Your task to perform on an android device: Add panasonic triple a to the cart on target.com Image 0: 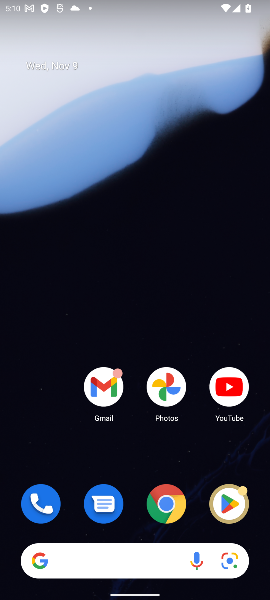
Step 0: click (118, 563)
Your task to perform on an android device: Add panasonic triple a to the cart on target.com Image 1: 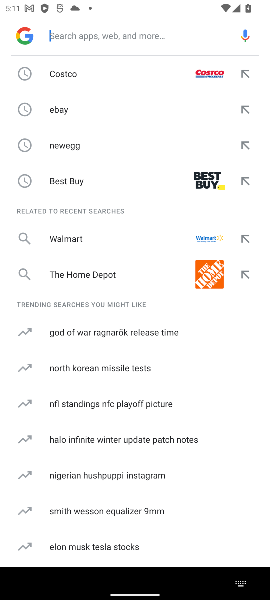
Step 1: type "target.com"
Your task to perform on an android device: Add panasonic triple a to the cart on target.com Image 2: 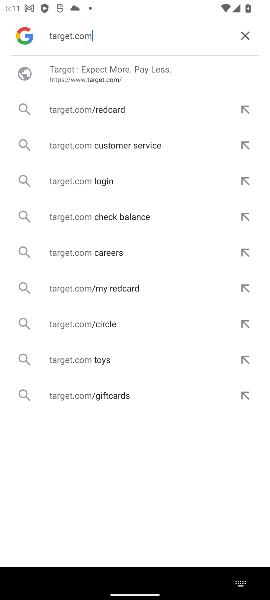
Step 2: click (100, 76)
Your task to perform on an android device: Add panasonic triple a to the cart on target.com Image 3: 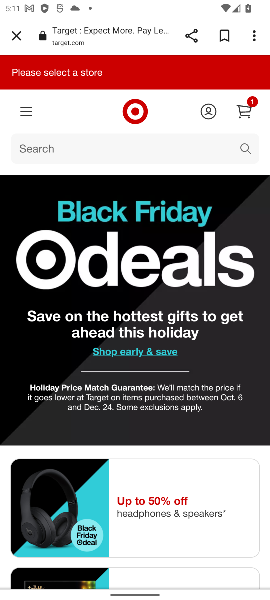
Step 3: click (173, 146)
Your task to perform on an android device: Add panasonic triple a to the cart on target.com Image 4: 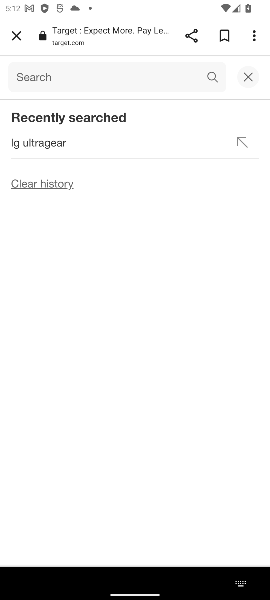
Step 4: type " triple a"
Your task to perform on an android device: Add panasonic triple a to the cart on target.com Image 5: 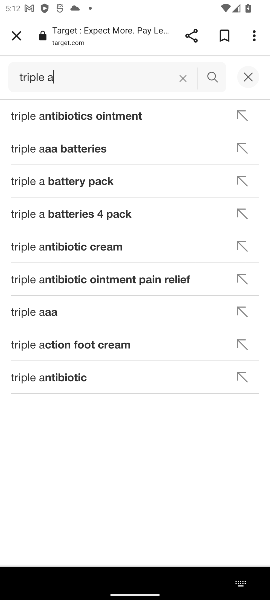
Step 5: click (74, 181)
Your task to perform on an android device: Add panasonic triple a to the cart on target.com Image 6: 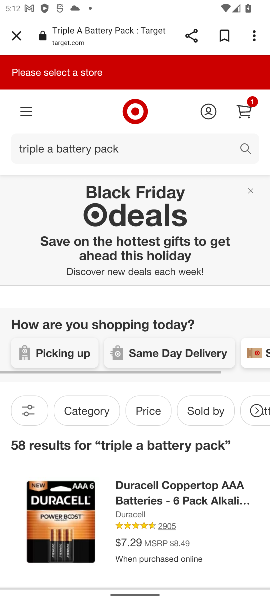
Step 6: click (153, 484)
Your task to perform on an android device: Add panasonic triple a to the cart on target.com Image 7: 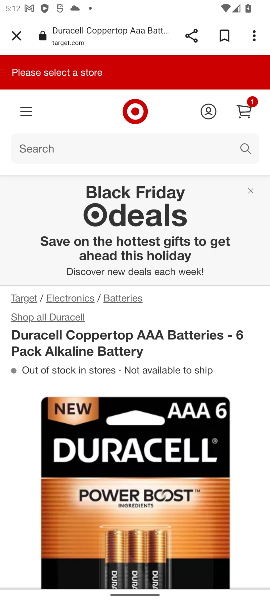
Step 7: drag from (154, 480) to (160, 286)
Your task to perform on an android device: Add panasonic triple a to the cart on target.com Image 8: 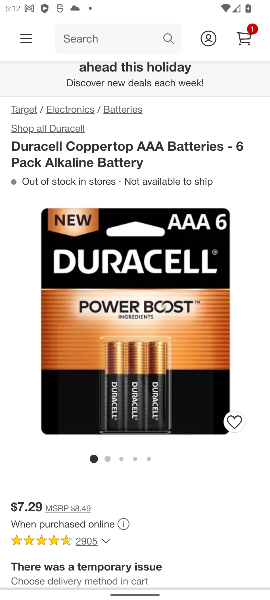
Step 8: drag from (149, 489) to (153, 160)
Your task to perform on an android device: Add panasonic triple a to the cart on target.com Image 9: 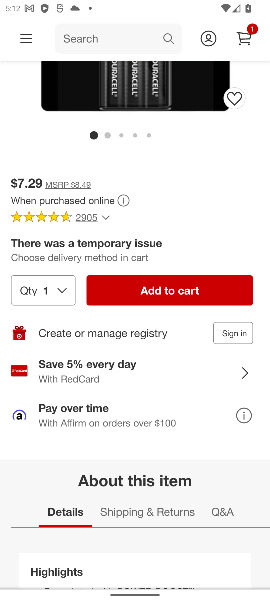
Step 9: click (166, 291)
Your task to perform on an android device: Add panasonic triple a to the cart on target.com Image 10: 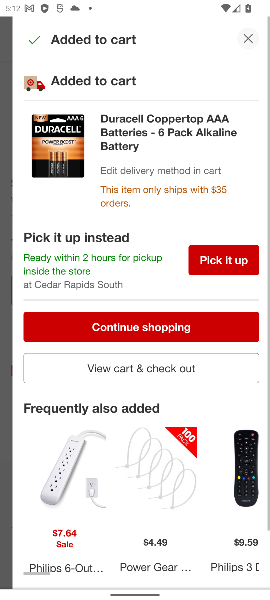
Step 10: click (160, 362)
Your task to perform on an android device: Add panasonic triple a to the cart on target.com Image 11: 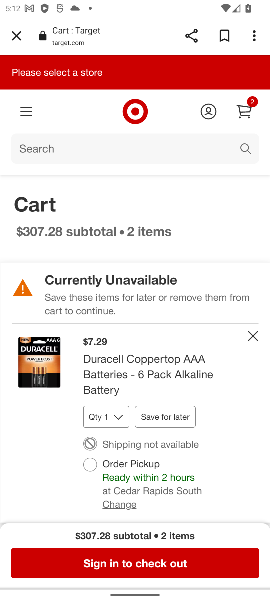
Step 11: task complete